Your task to perform on an android device: When is my next meeting? Image 0: 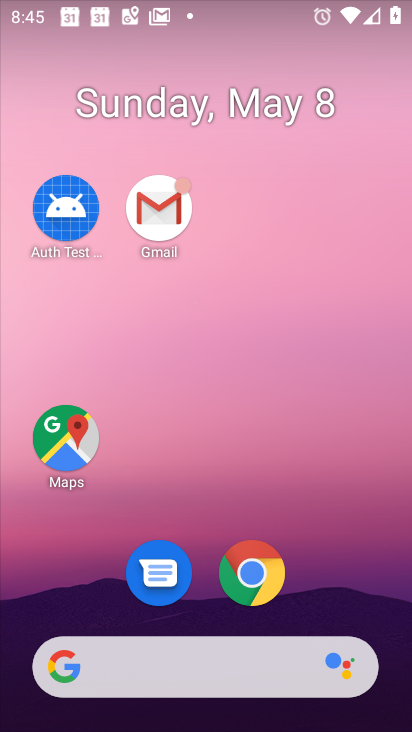
Step 0: drag from (372, 642) to (190, 8)
Your task to perform on an android device: When is my next meeting? Image 1: 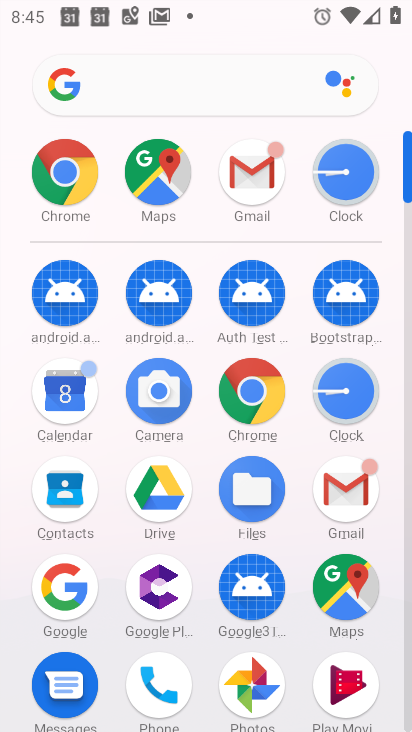
Step 1: click (72, 394)
Your task to perform on an android device: When is my next meeting? Image 2: 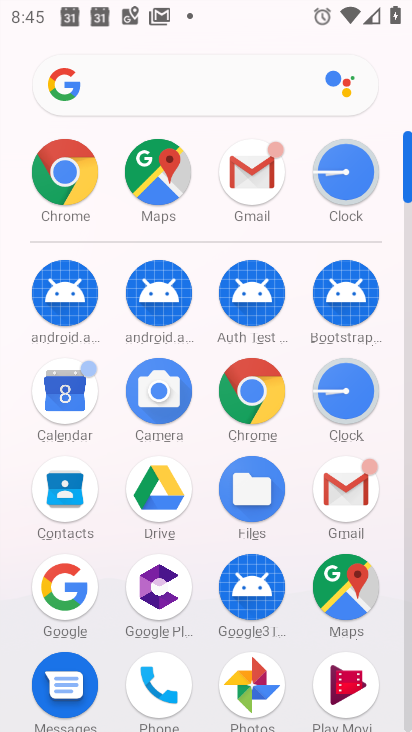
Step 2: click (72, 394)
Your task to perform on an android device: When is my next meeting? Image 3: 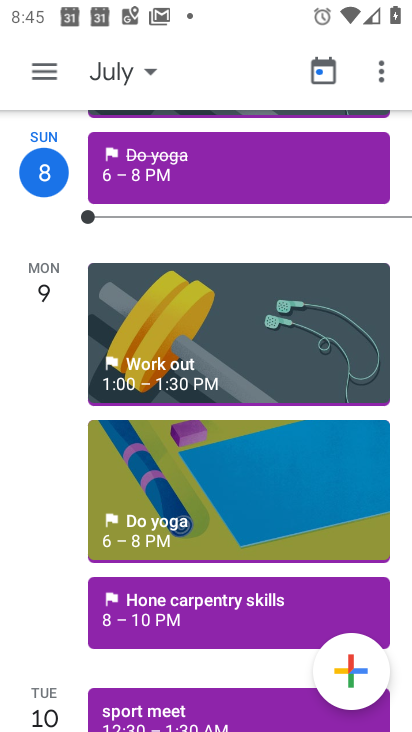
Step 3: click (73, 393)
Your task to perform on an android device: When is my next meeting? Image 4: 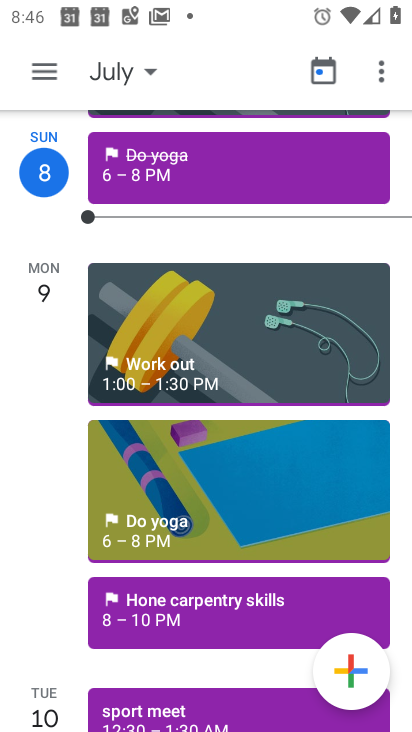
Step 4: task complete